Your task to perform on an android device: empty trash in google photos Image 0: 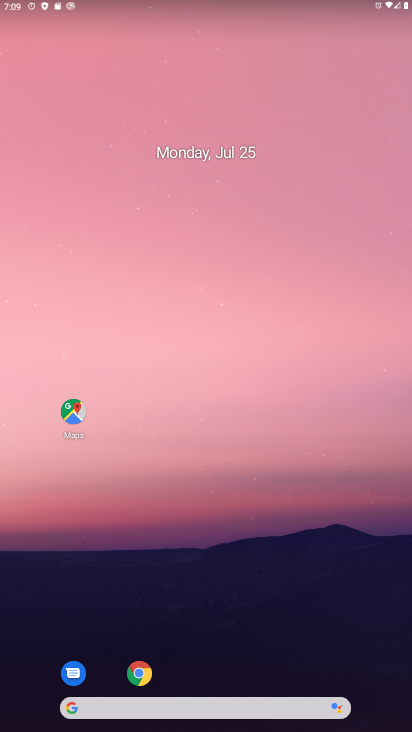
Step 0: drag from (255, 679) to (75, 20)
Your task to perform on an android device: empty trash in google photos Image 1: 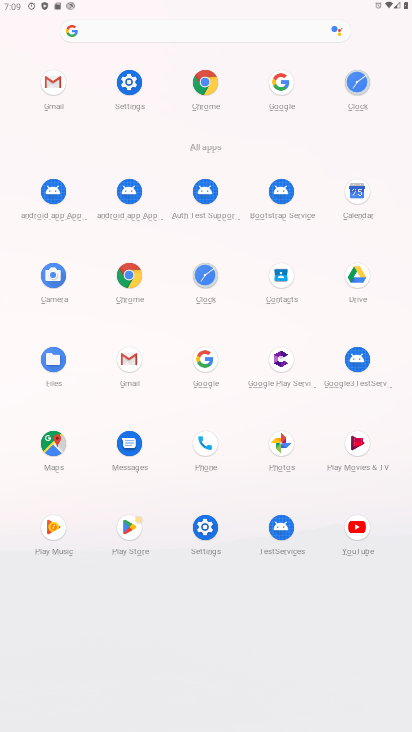
Step 1: click (285, 438)
Your task to perform on an android device: empty trash in google photos Image 2: 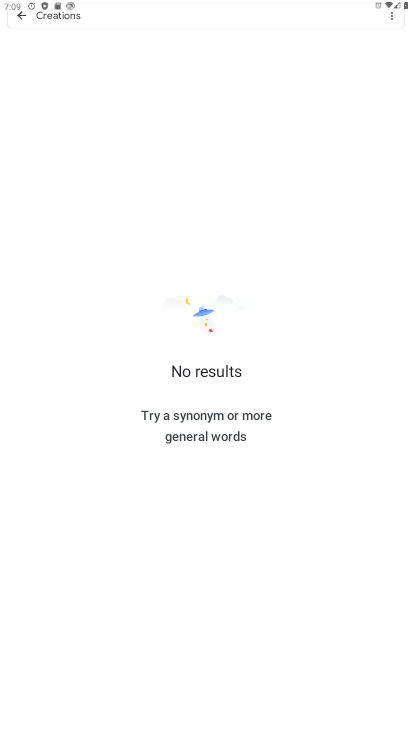
Step 2: press back button
Your task to perform on an android device: empty trash in google photos Image 3: 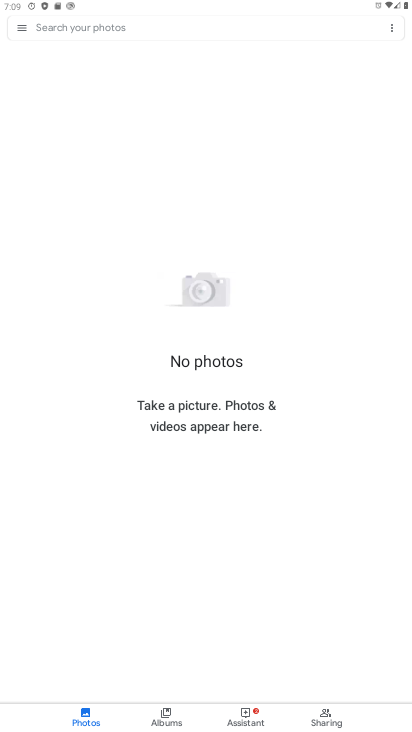
Step 3: click (23, 17)
Your task to perform on an android device: empty trash in google photos Image 4: 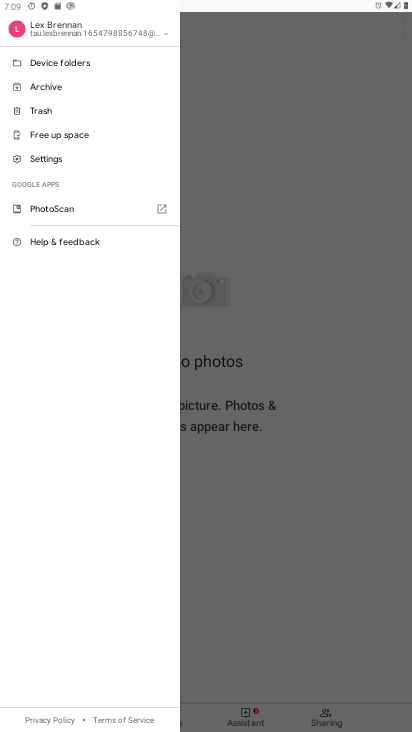
Step 4: click (35, 111)
Your task to perform on an android device: empty trash in google photos Image 5: 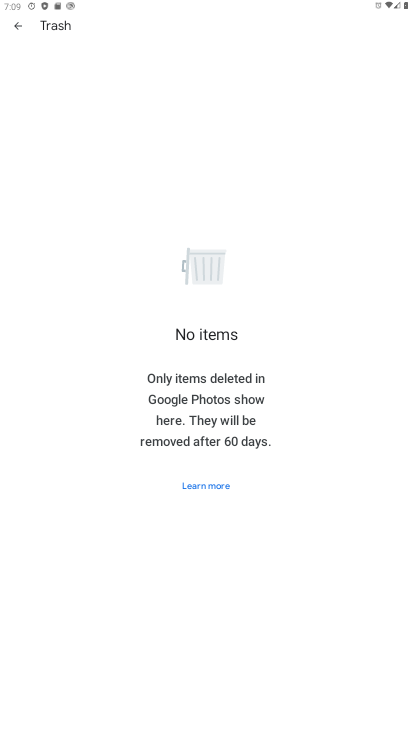
Step 5: task complete